Your task to perform on an android device: What's the weather? Image 0: 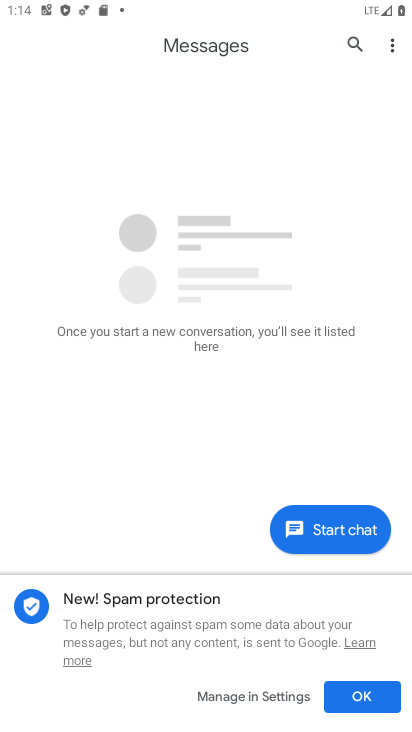
Step 0: press home button
Your task to perform on an android device: What's the weather? Image 1: 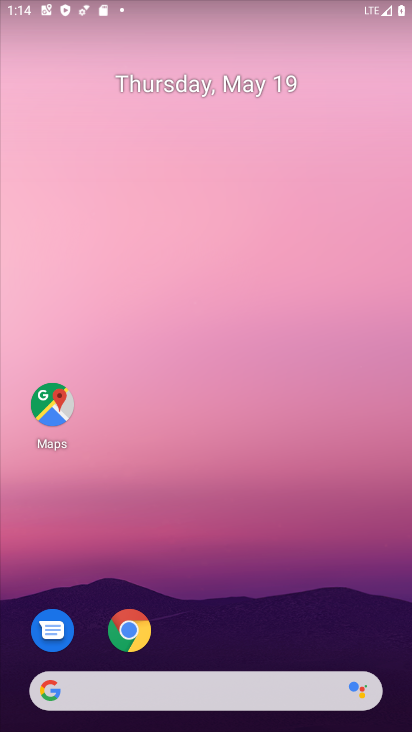
Step 1: drag from (232, 667) to (260, 33)
Your task to perform on an android device: What's the weather? Image 2: 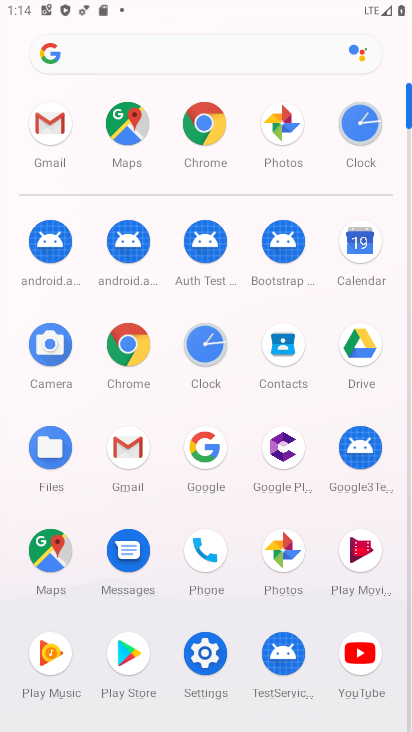
Step 2: click (192, 478)
Your task to perform on an android device: What's the weather? Image 3: 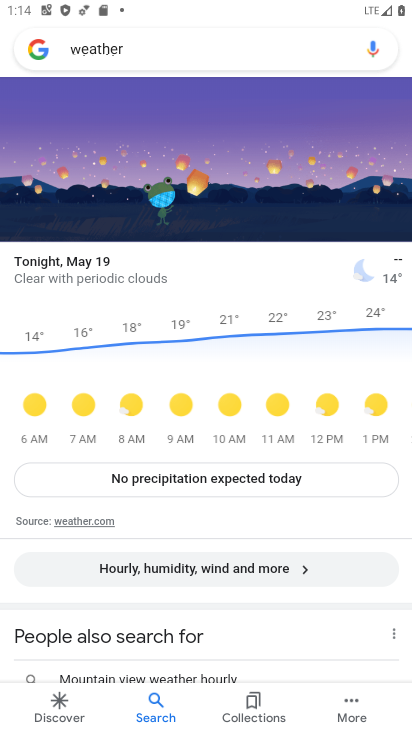
Step 3: task complete